Your task to perform on an android device: Add "razer naga" to the cart on costco, then select checkout. Image 0: 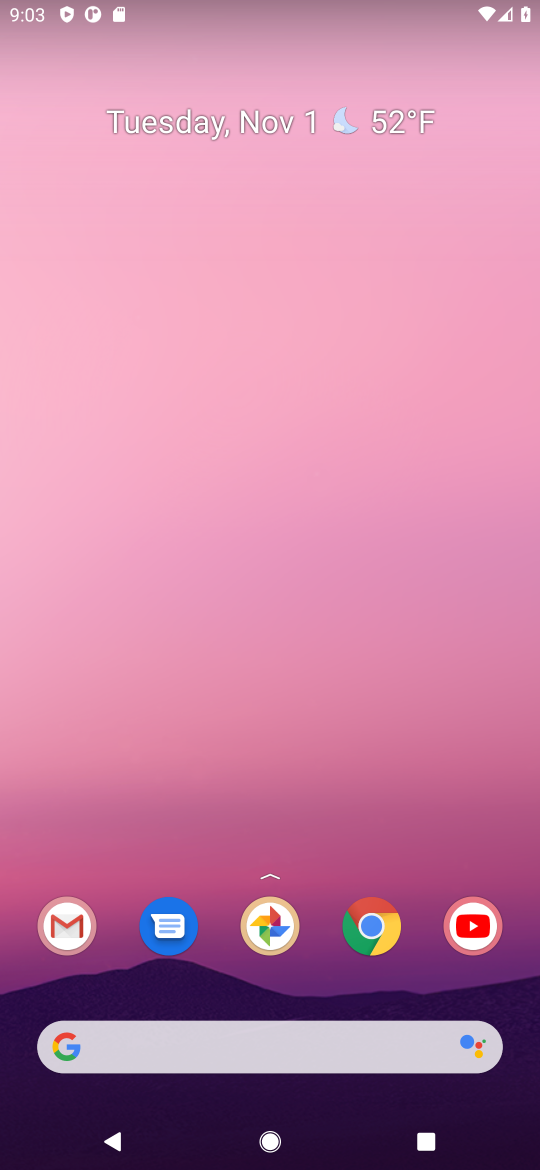
Step 0: click (401, 941)
Your task to perform on an android device: Add "razer naga" to the cart on costco, then select checkout. Image 1: 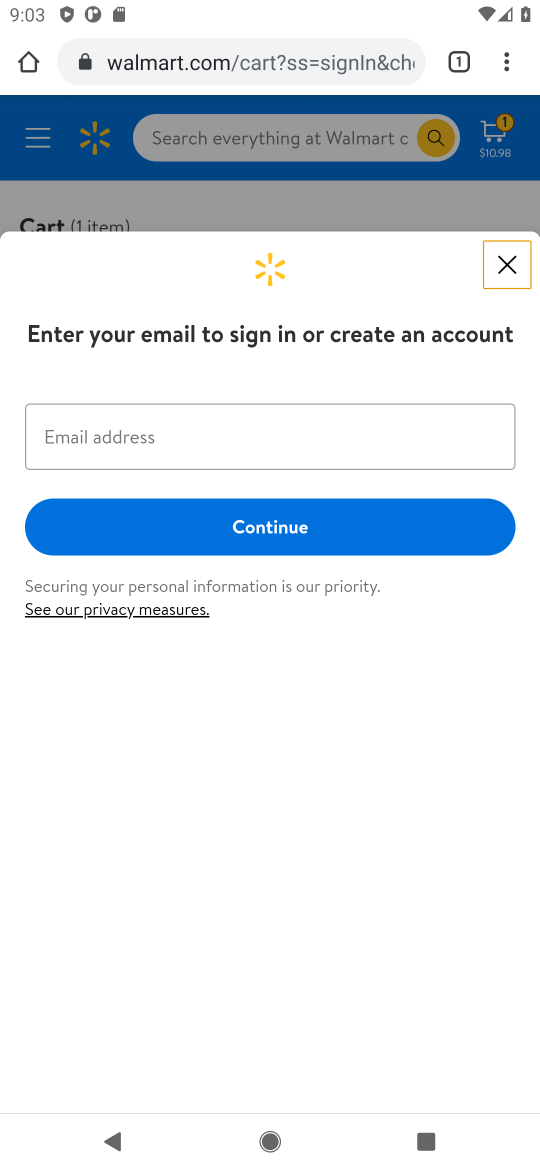
Step 1: click (507, 256)
Your task to perform on an android device: Add "razer naga" to the cart on costco, then select checkout. Image 2: 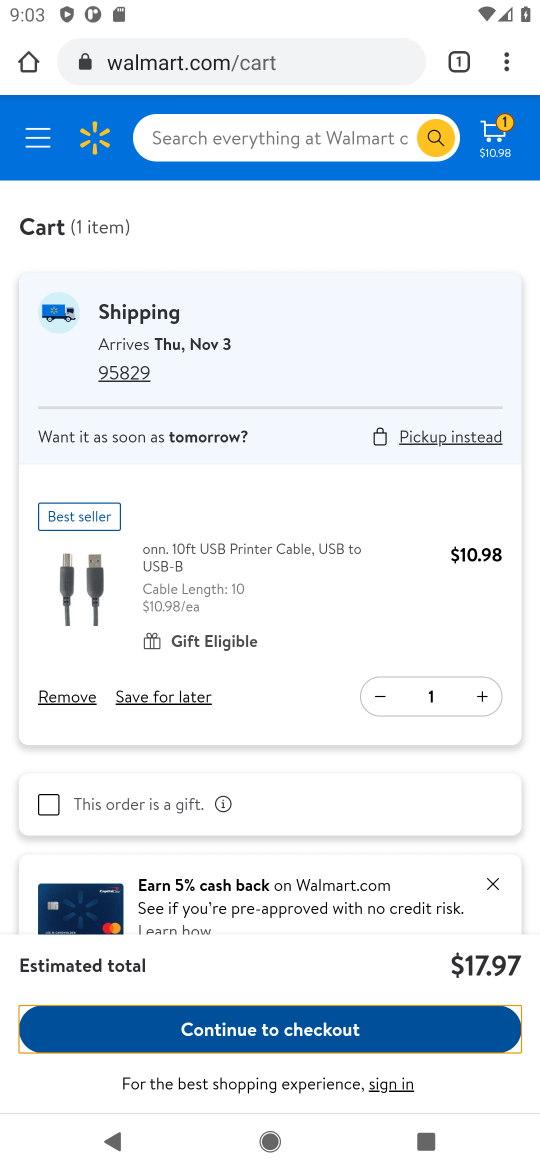
Step 2: click (134, 64)
Your task to perform on an android device: Add "razer naga" to the cart on costco, then select checkout. Image 3: 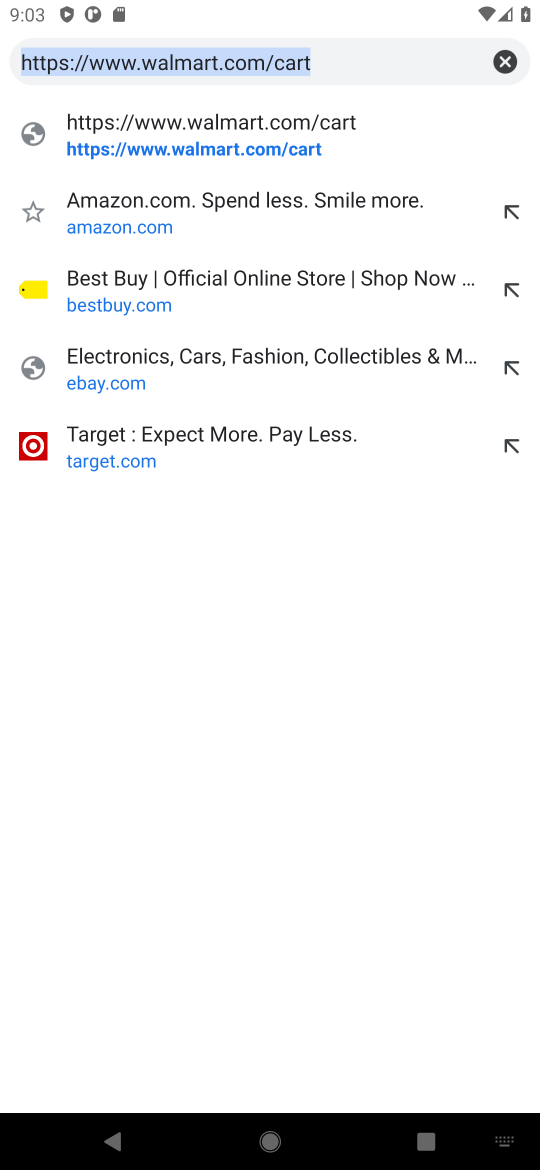
Step 3: type ""
Your task to perform on an android device: Add "razer naga" to the cart on costco, then select checkout. Image 4: 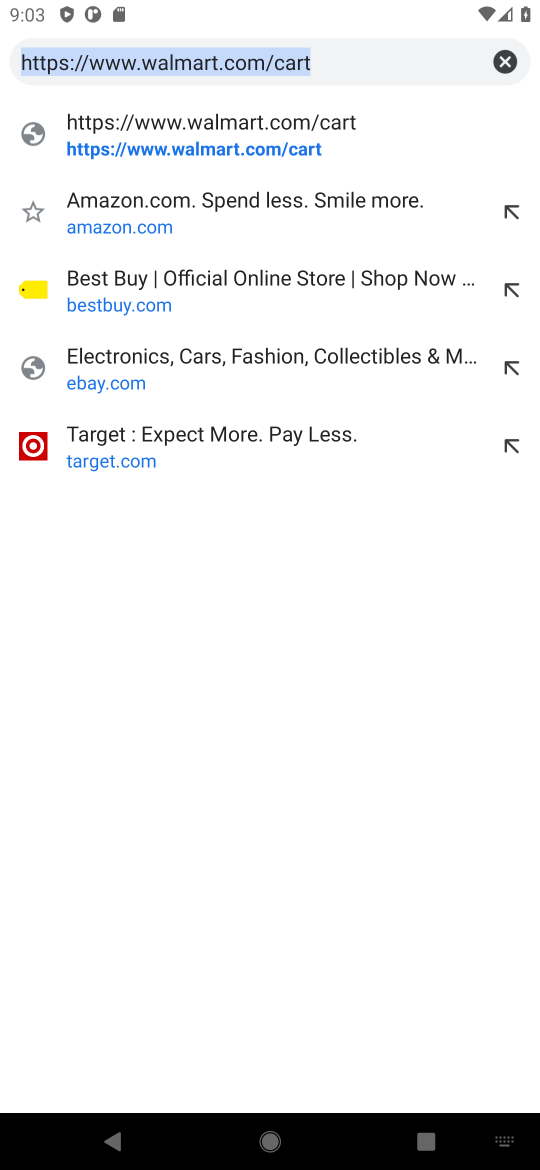
Step 4: type "costco"
Your task to perform on an android device: Add "razer naga" to the cart on costco, then select checkout. Image 5: 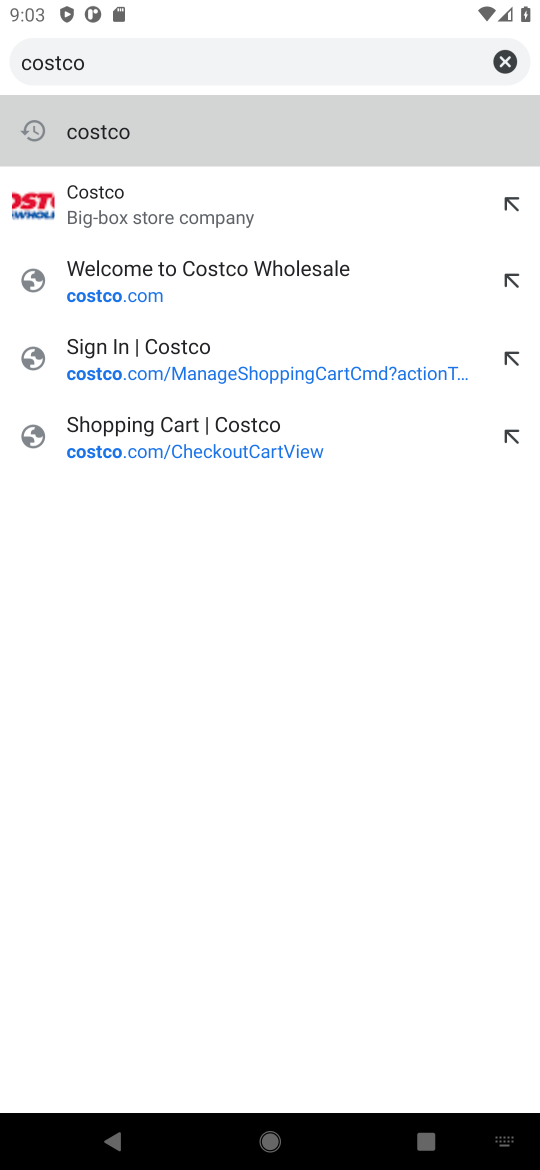
Step 5: type ""
Your task to perform on an android device: Add "razer naga" to the cart on costco, then select checkout. Image 6: 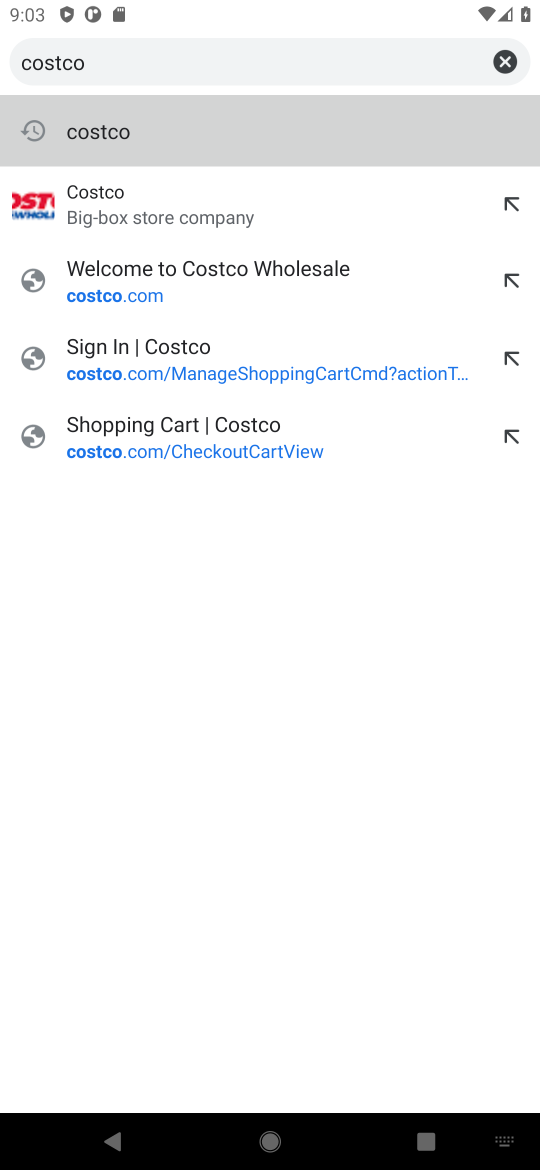
Step 6: click (91, 209)
Your task to perform on an android device: Add "razer naga" to the cart on costco, then select checkout. Image 7: 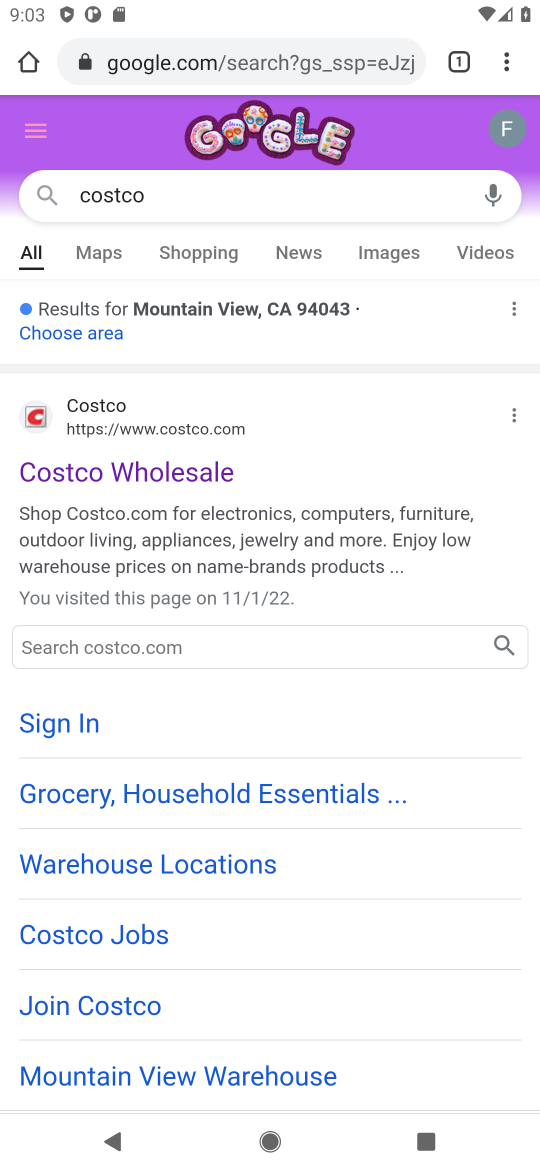
Step 7: click (145, 480)
Your task to perform on an android device: Add "razer naga" to the cart on costco, then select checkout. Image 8: 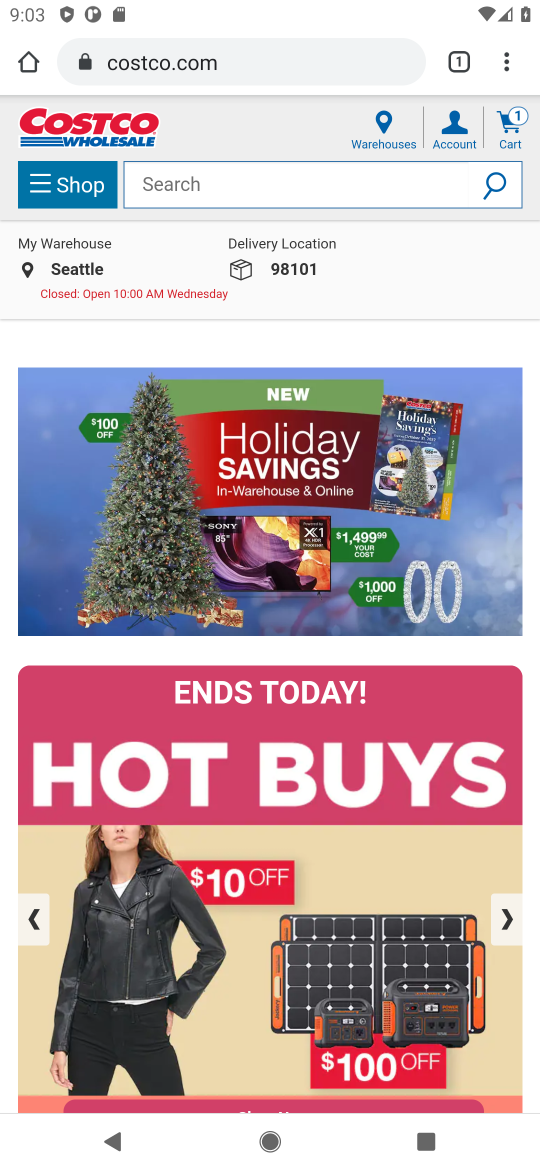
Step 8: click (240, 189)
Your task to perform on an android device: Add "razer naga" to the cart on costco, then select checkout. Image 9: 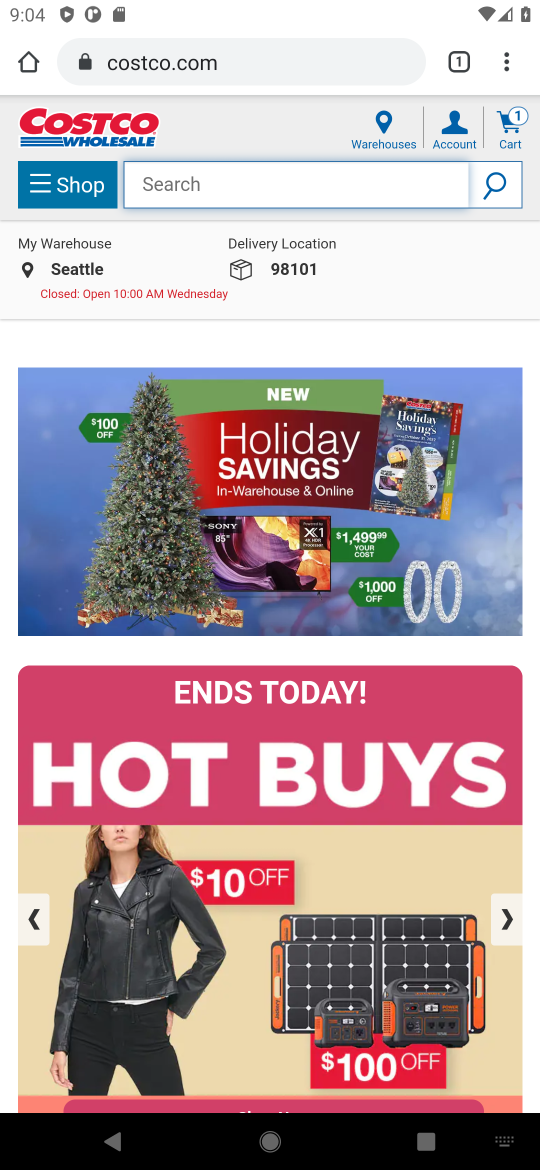
Step 9: type "razer naga"
Your task to perform on an android device: Add "razer naga" to the cart on costco, then select checkout. Image 10: 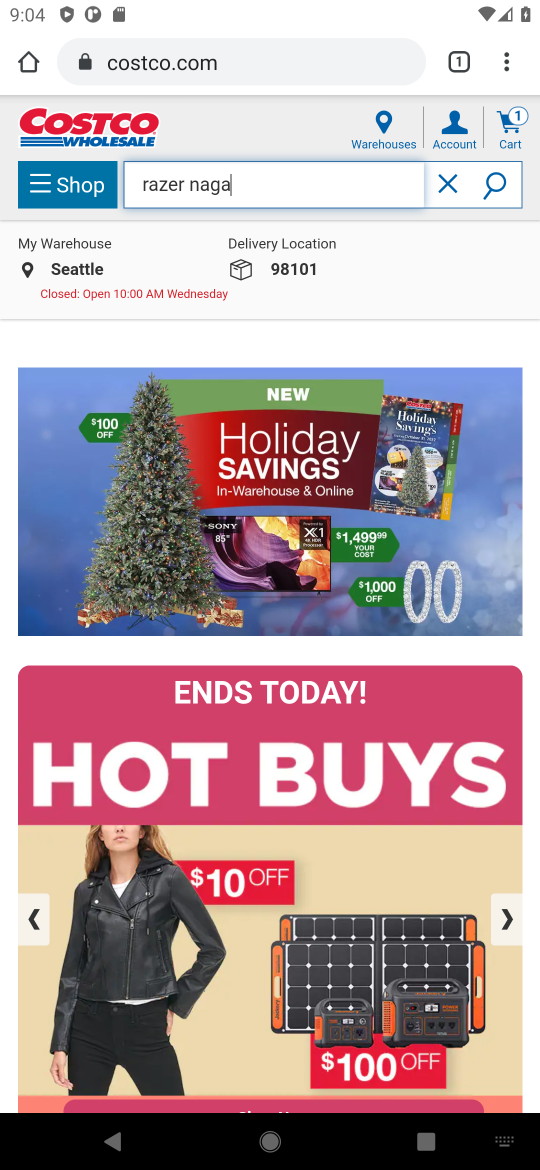
Step 10: type ""
Your task to perform on an android device: Add "razer naga" to the cart on costco, then select checkout. Image 11: 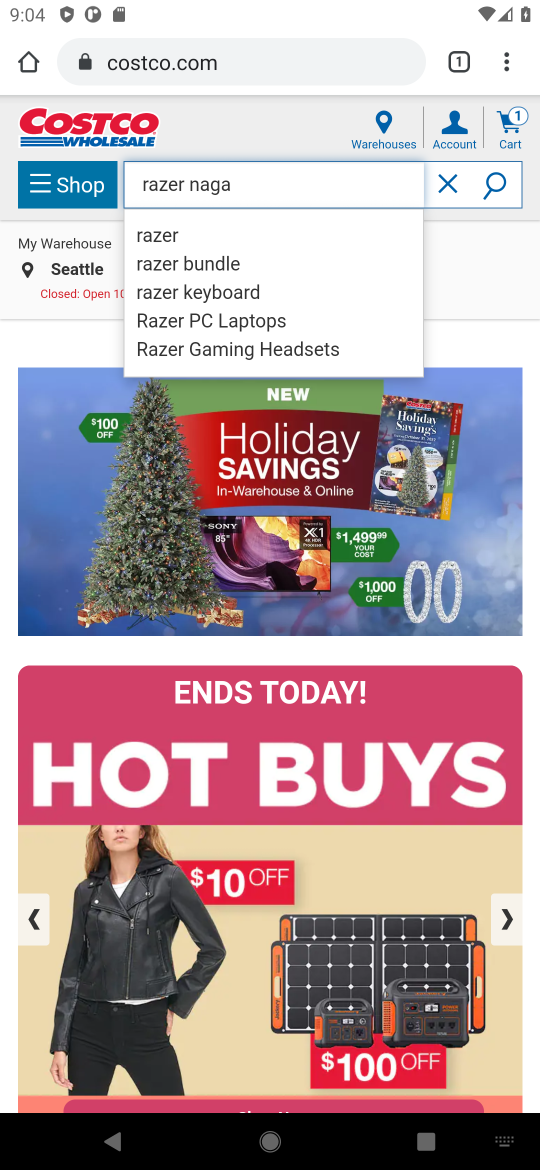
Step 11: click (210, 252)
Your task to perform on an android device: Add "razer naga" to the cart on costco, then select checkout. Image 12: 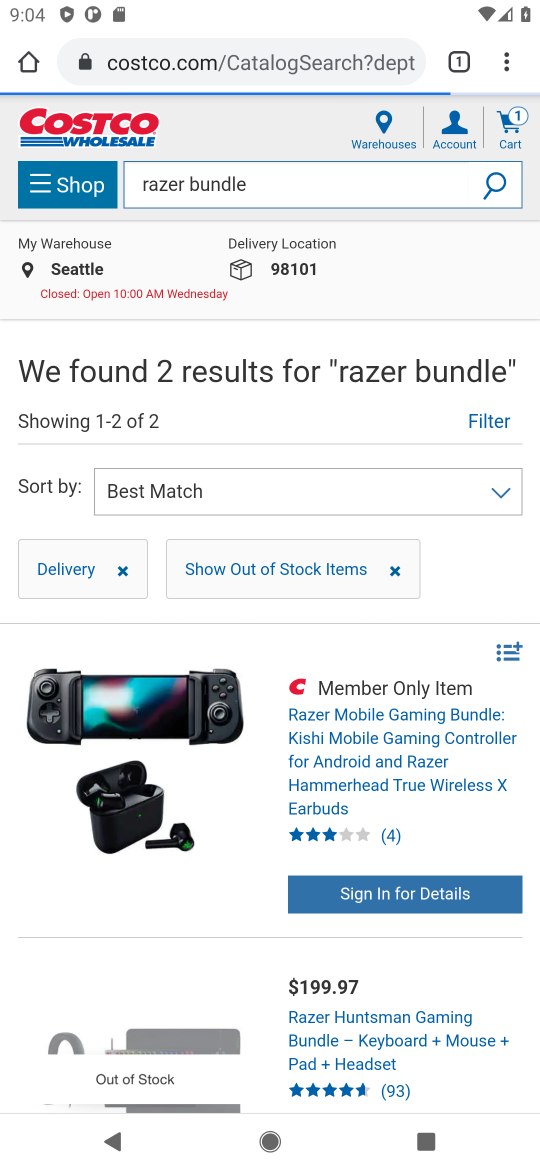
Step 12: drag from (147, 776) to (200, 145)
Your task to perform on an android device: Add "razer naga" to the cart on costco, then select checkout. Image 13: 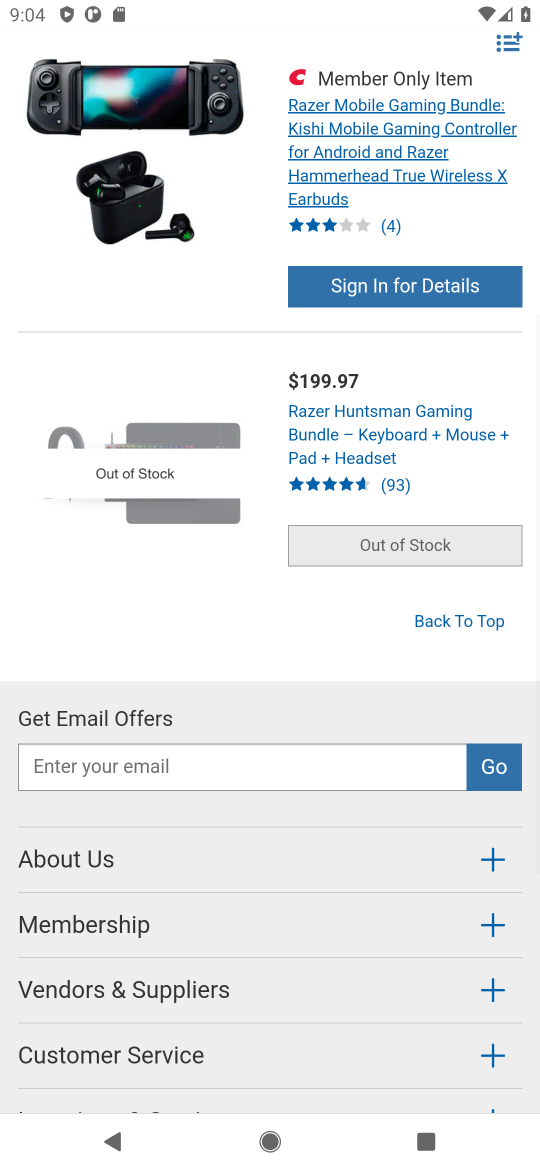
Step 13: drag from (179, 1087) to (217, 621)
Your task to perform on an android device: Add "razer naga" to the cart on costco, then select checkout. Image 14: 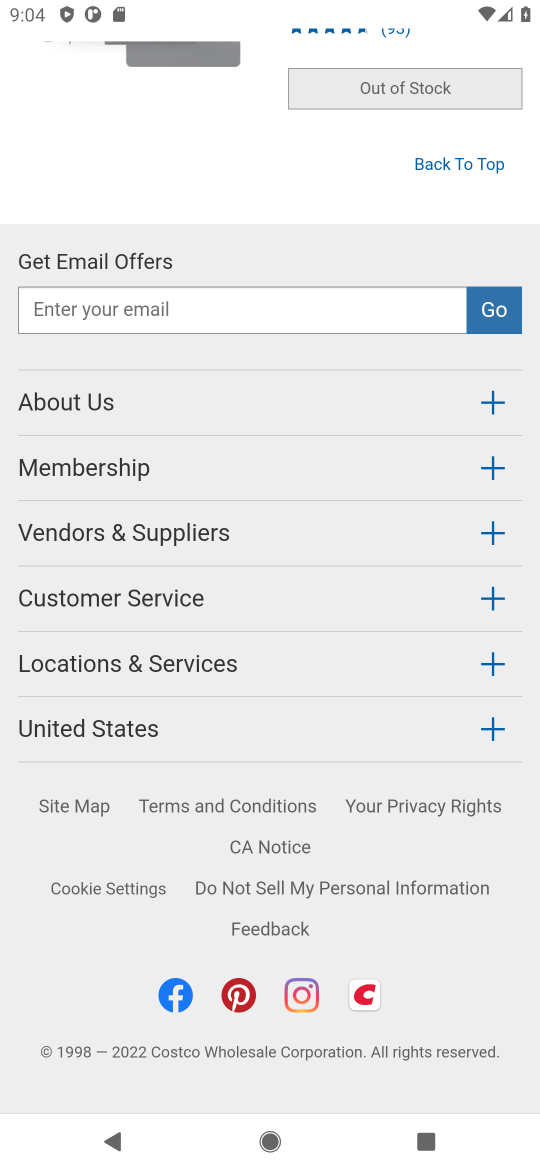
Step 14: drag from (286, 414) to (292, 914)
Your task to perform on an android device: Add "razer naga" to the cart on costco, then select checkout. Image 15: 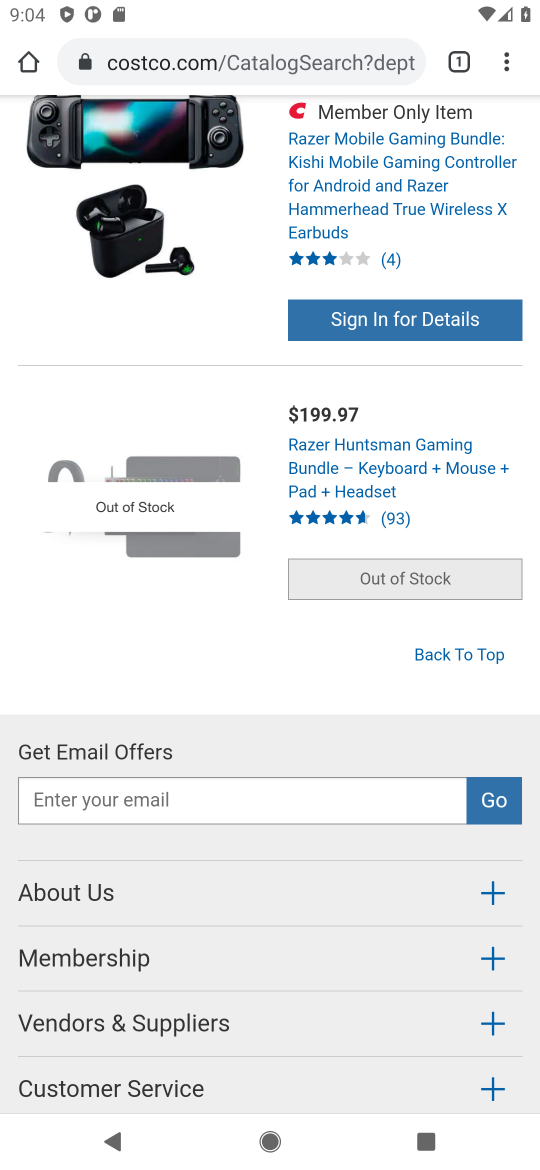
Step 15: click (398, 442)
Your task to perform on an android device: Add "razer naga" to the cart on costco, then select checkout. Image 16: 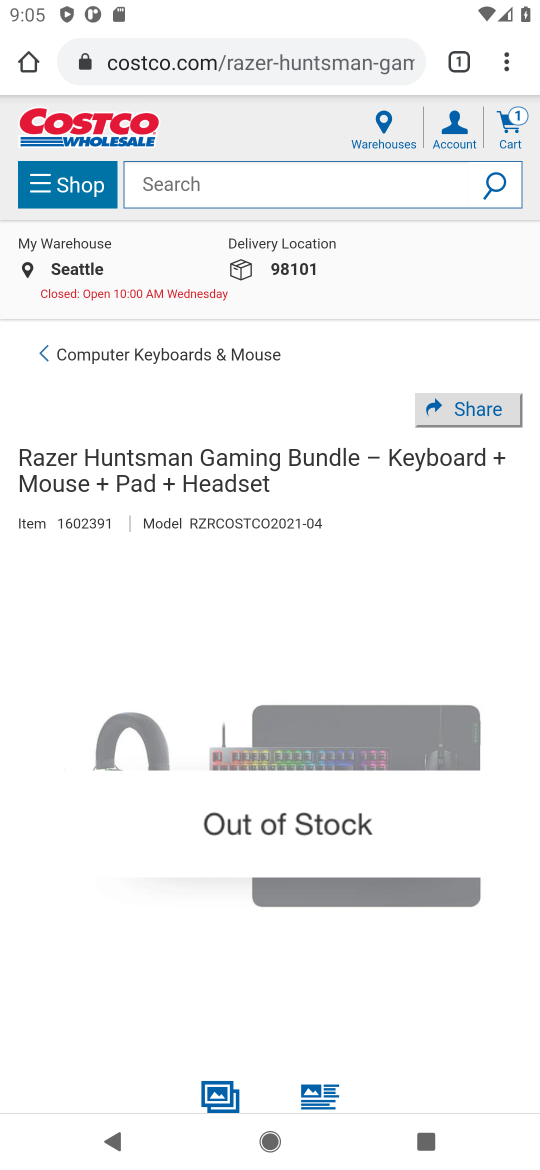
Step 16: drag from (172, 957) to (249, 278)
Your task to perform on an android device: Add "razer naga" to the cart on costco, then select checkout. Image 17: 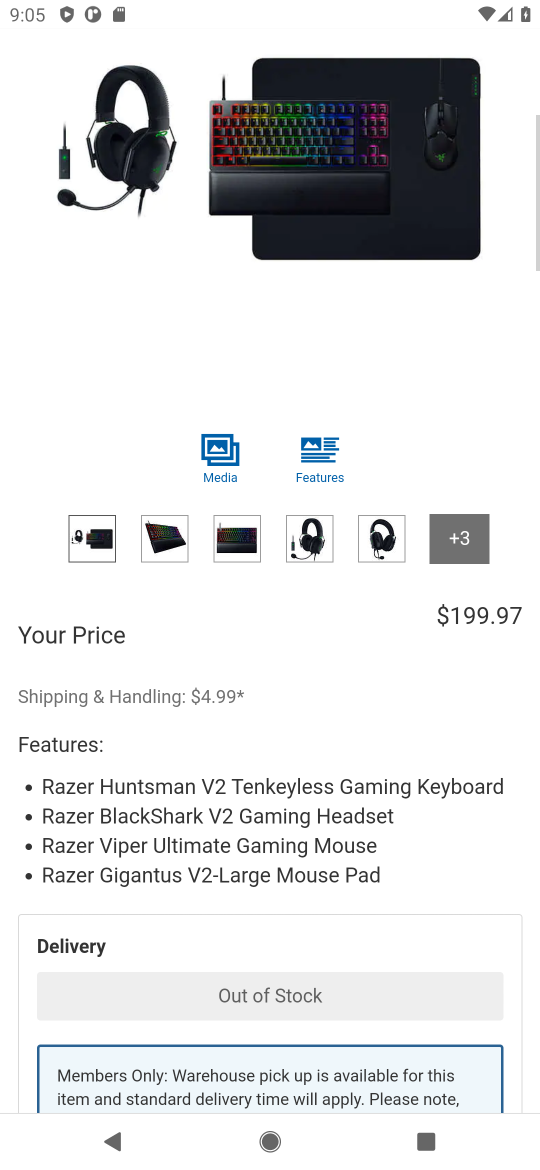
Step 17: drag from (205, 926) to (256, 608)
Your task to perform on an android device: Add "razer naga" to the cart on costco, then select checkout. Image 18: 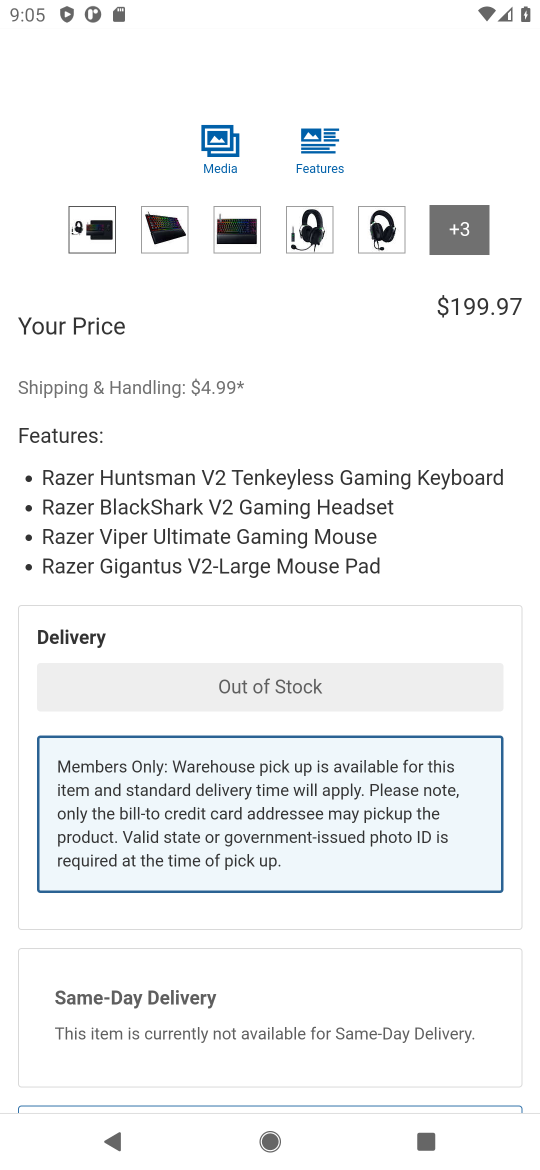
Step 18: drag from (199, 1079) to (326, 207)
Your task to perform on an android device: Add "razer naga" to the cart on costco, then select checkout. Image 19: 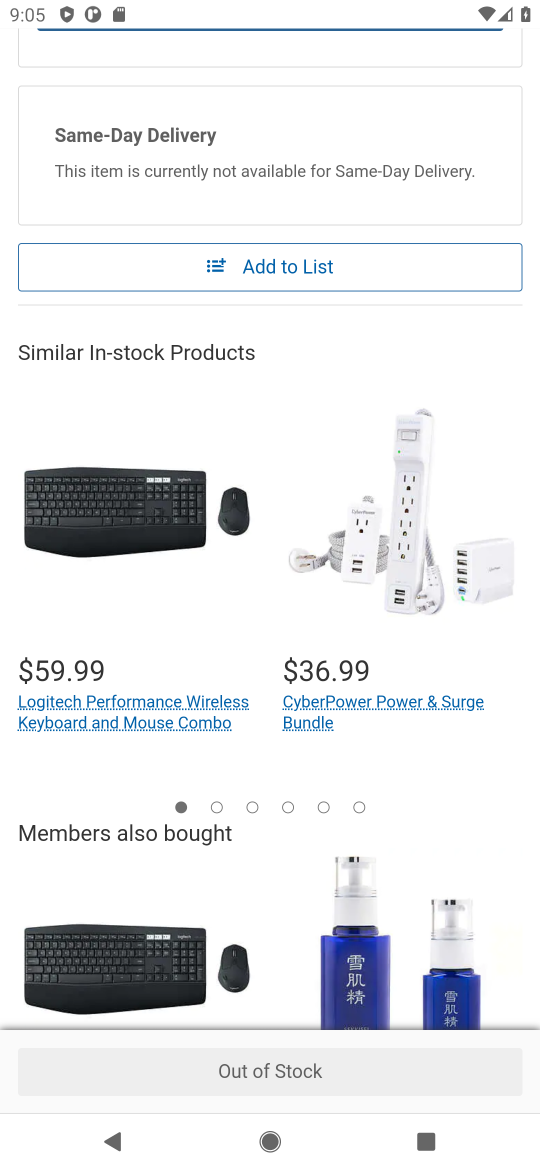
Step 19: drag from (178, 857) to (262, 266)
Your task to perform on an android device: Add "razer naga" to the cart on costco, then select checkout. Image 20: 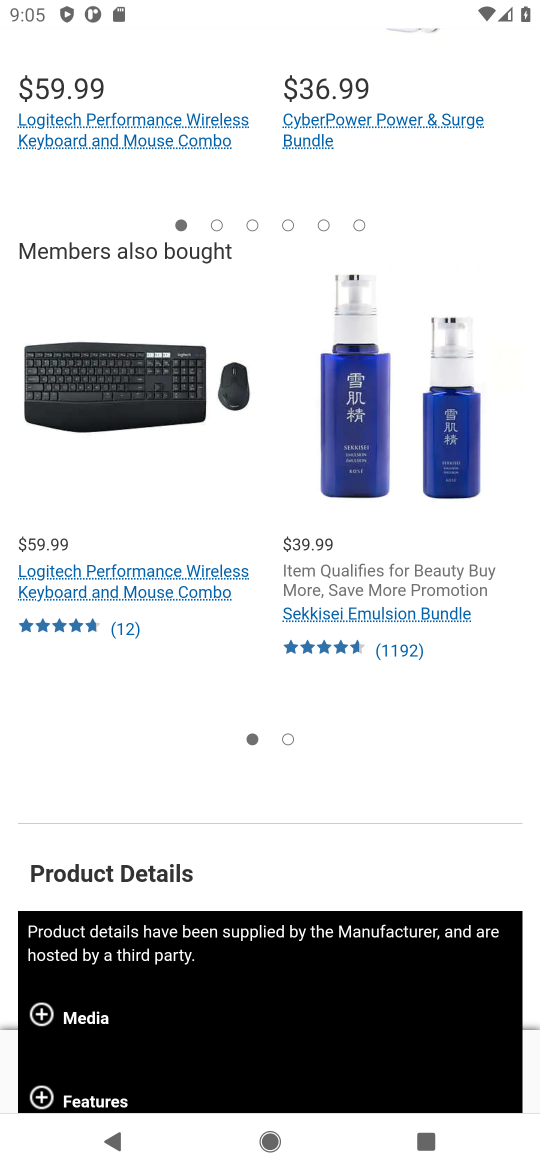
Step 20: drag from (211, 413) to (97, 990)
Your task to perform on an android device: Add "razer naga" to the cart on costco, then select checkout. Image 21: 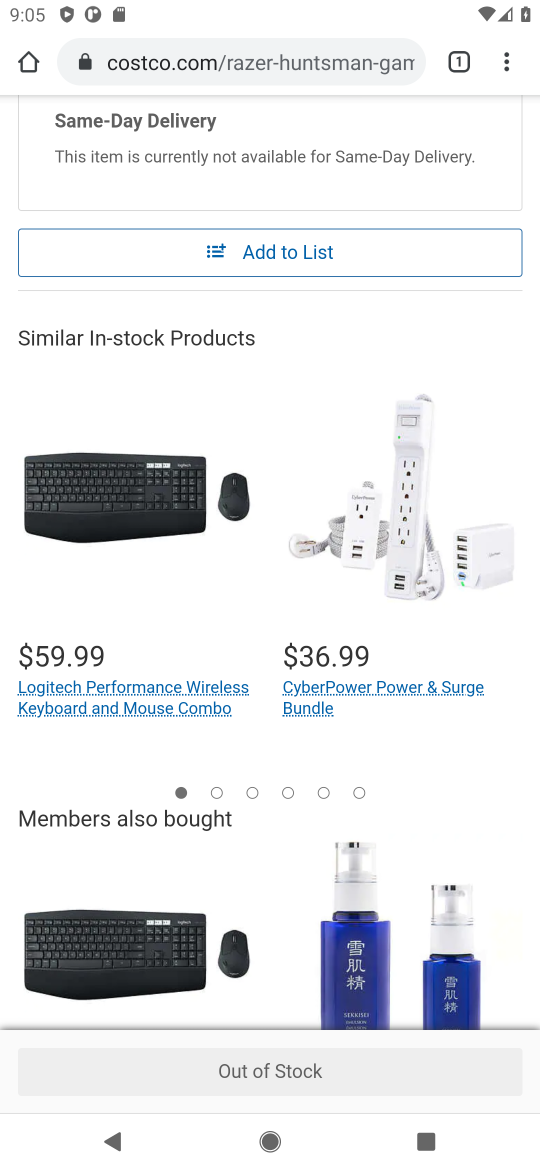
Step 21: drag from (327, 506) to (224, 859)
Your task to perform on an android device: Add "razer naga" to the cart on costco, then select checkout. Image 22: 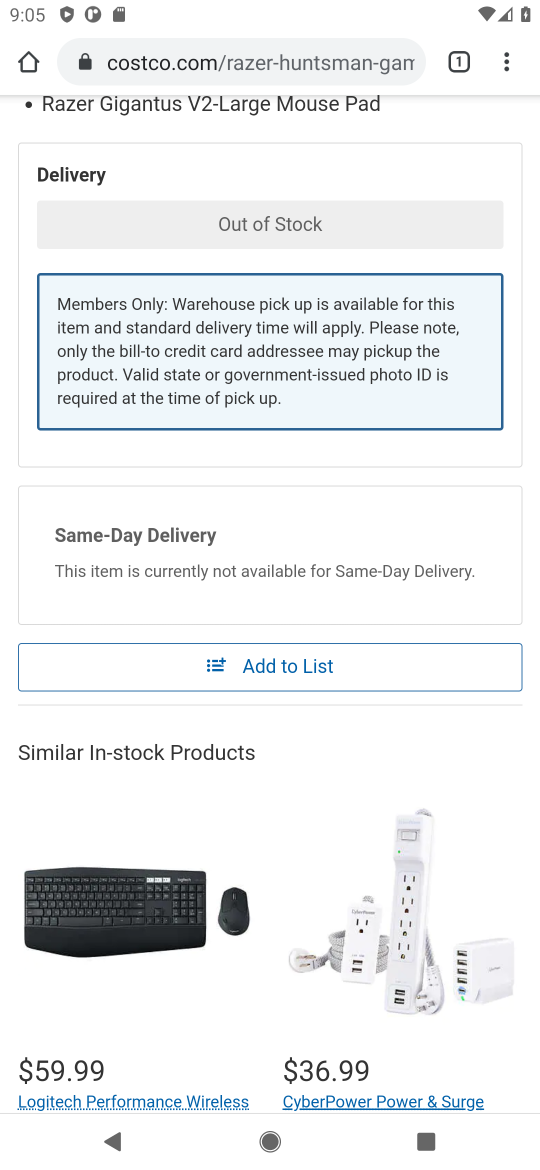
Step 22: drag from (394, 413) to (141, 792)
Your task to perform on an android device: Add "razer naga" to the cart on costco, then select checkout. Image 23: 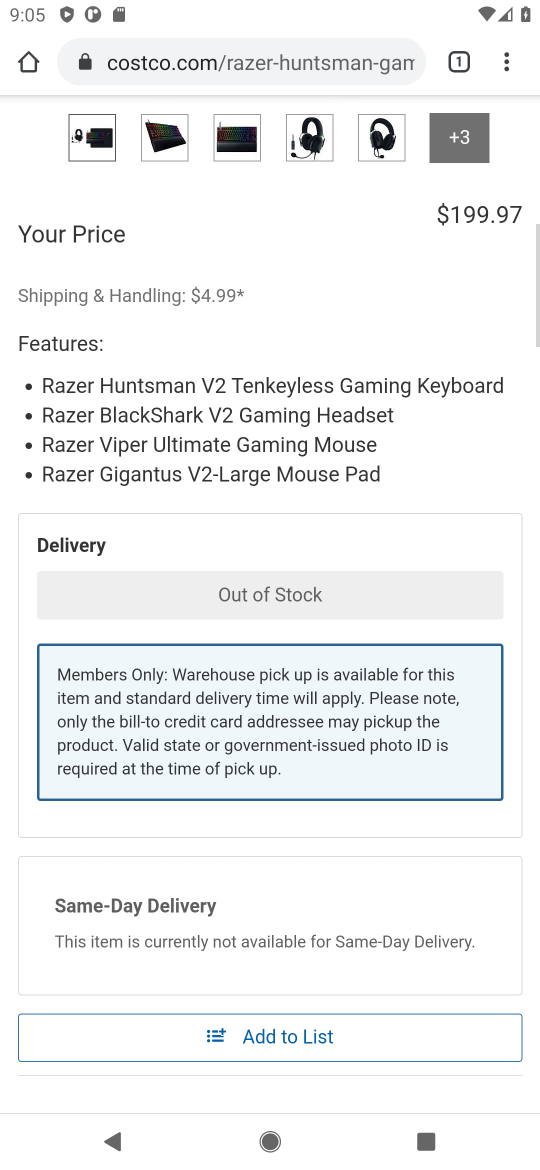
Step 23: drag from (323, 233) to (110, 721)
Your task to perform on an android device: Add "razer naga" to the cart on costco, then select checkout. Image 24: 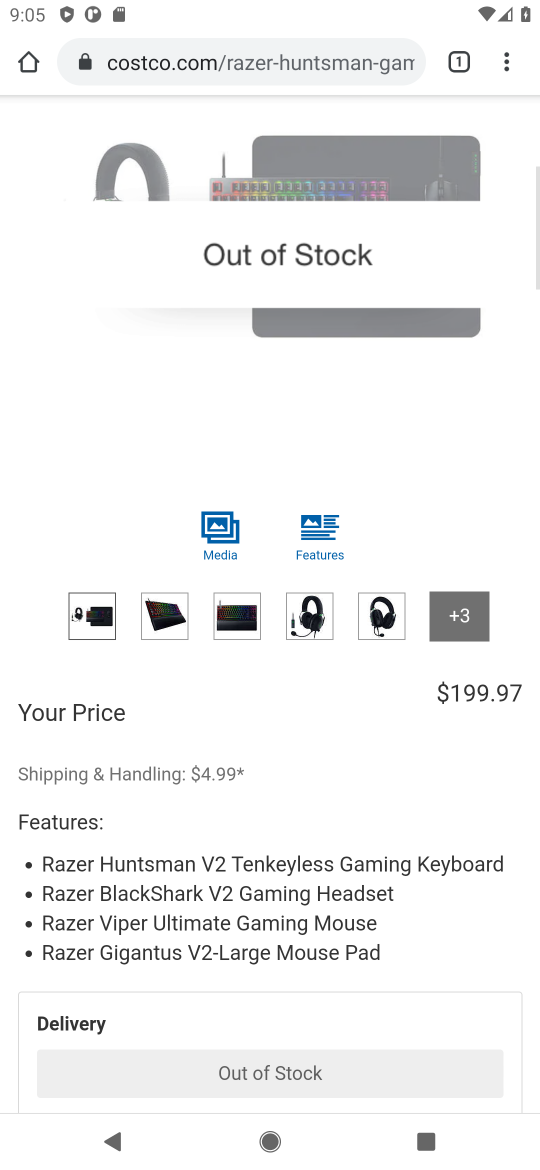
Step 24: drag from (212, 418) to (105, 737)
Your task to perform on an android device: Add "razer naga" to the cart on costco, then select checkout. Image 25: 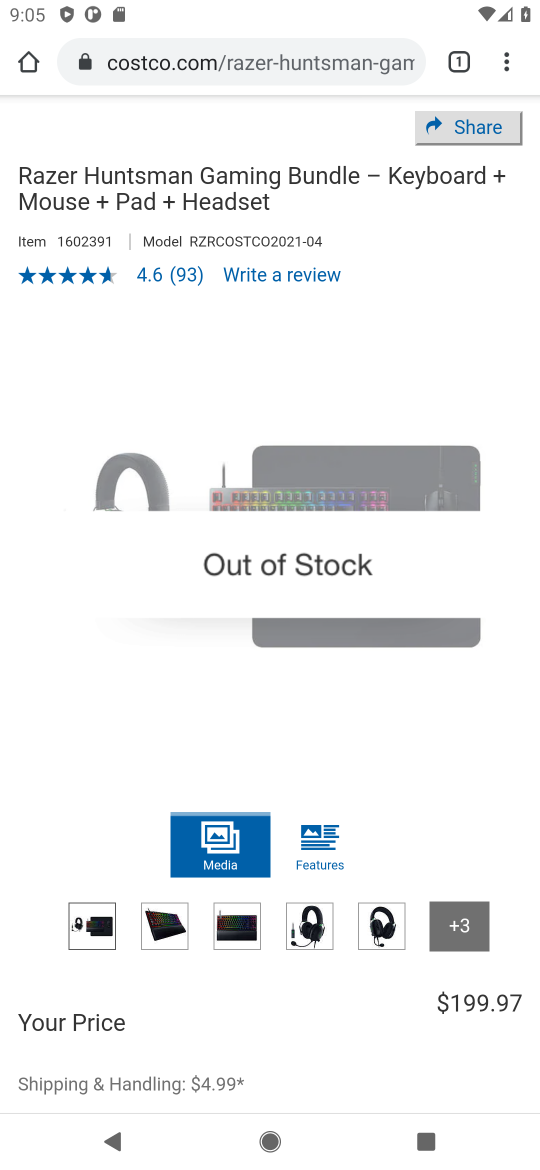
Step 25: drag from (324, 322) to (240, 868)
Your task to perform on an android device: Add "razer naga" to the cart on costco, then select checkout. Image 26: 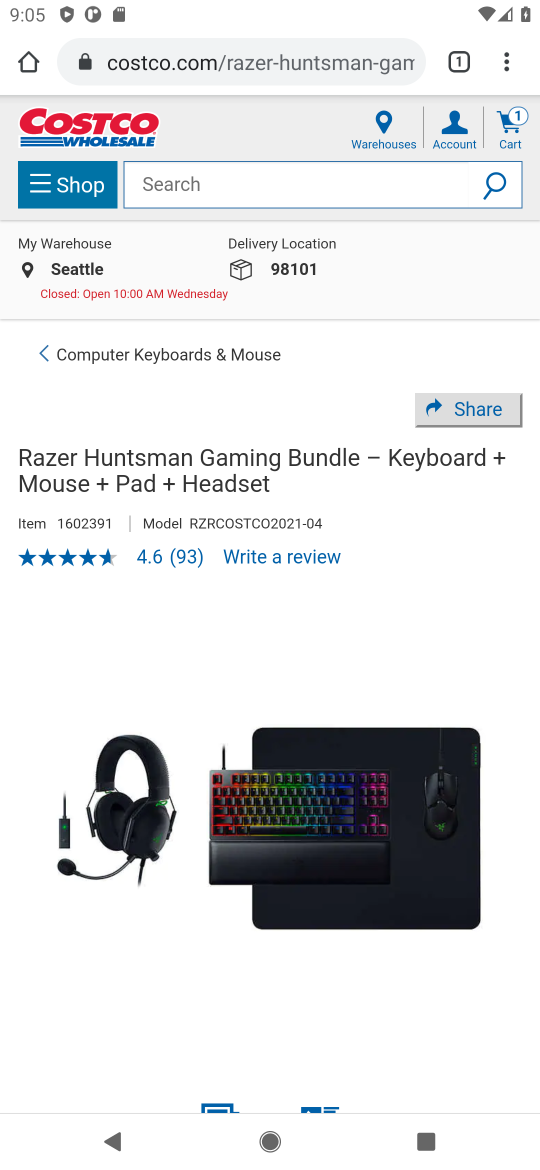
Step 26: click (294, 858)
Your task to perform on an android device: Add "razer naga" to the cart on costco, then select checkout. Image 27: 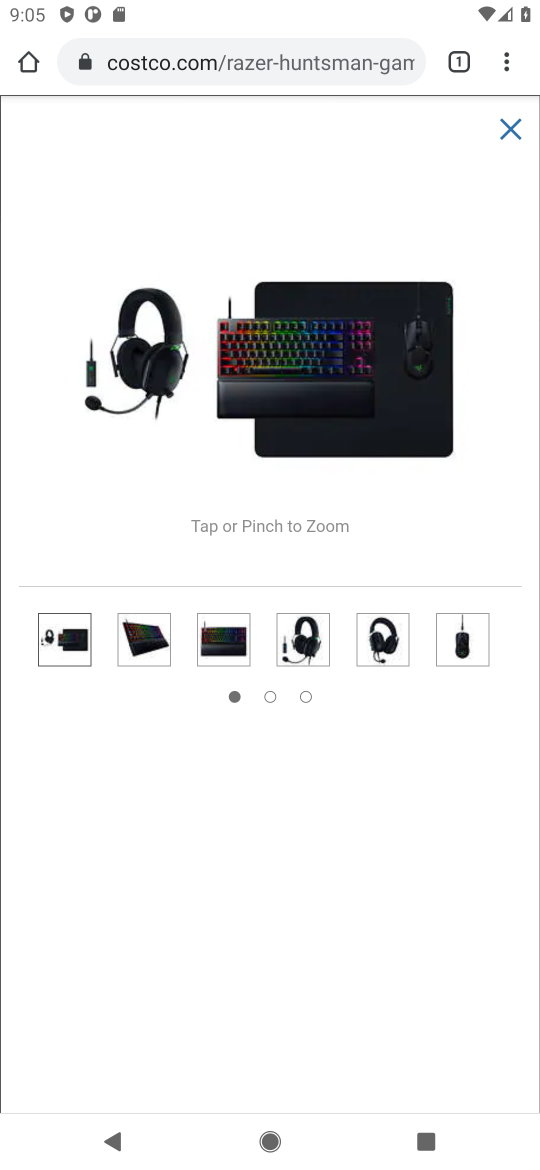
Step 27: drag from (444, 987) to (478, 564)
Your task to perform on an android device: Add "razer naga" to the cart on costco, then select checkout. Image 28: 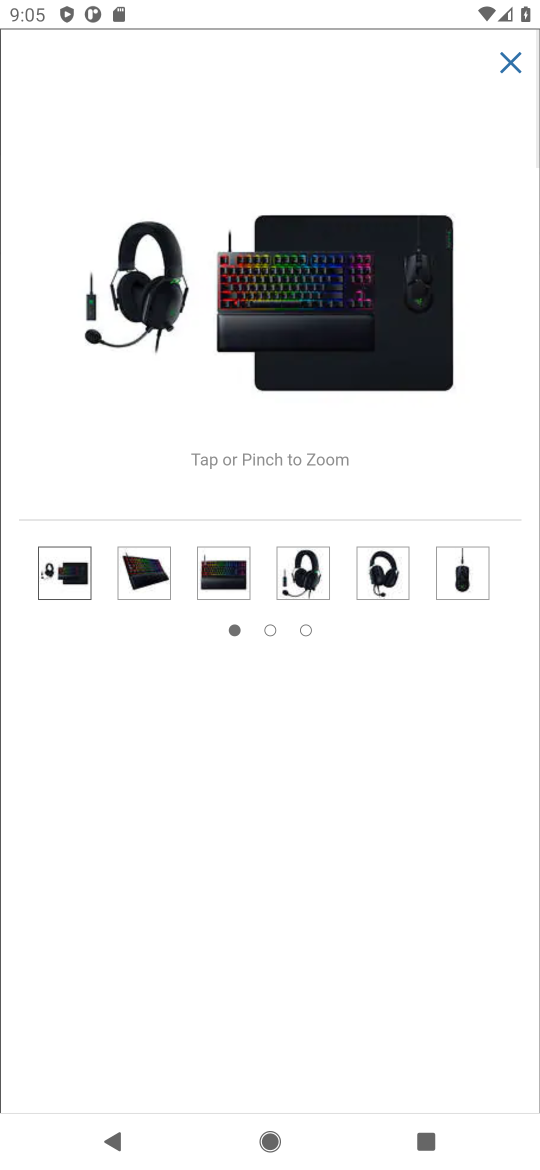
Step 28: drag from (328, 666) to (289, 1121)
Your task to perform on an android device: Add "razer naga" to the cart on costco, then select checkout. Image 29: 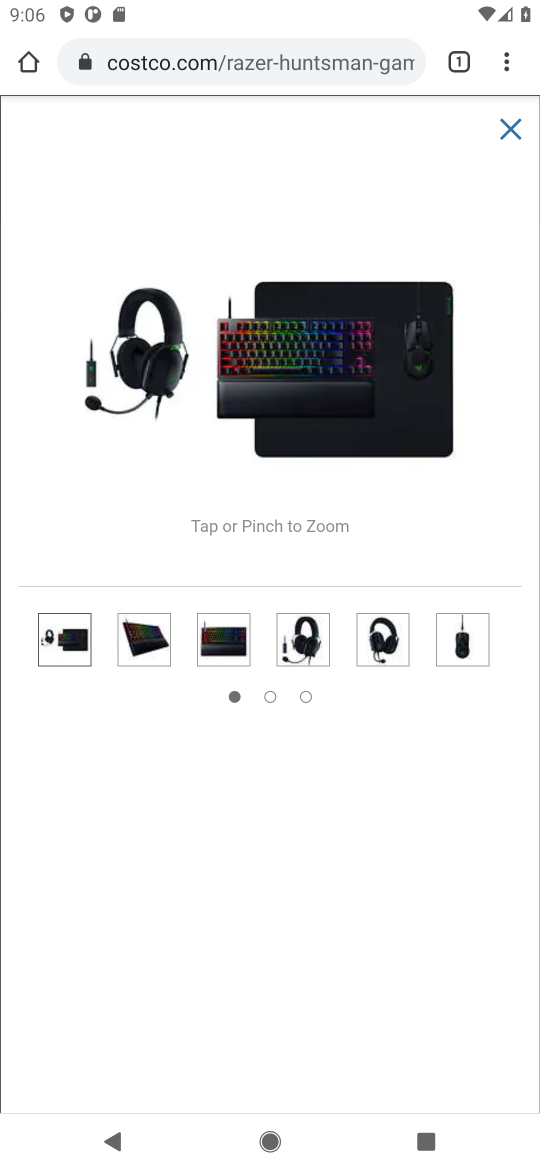
Step 29: press back button
Your task to perform on an android device: Add "razer naga" to the cart on costco, then select checkout. Image 30: 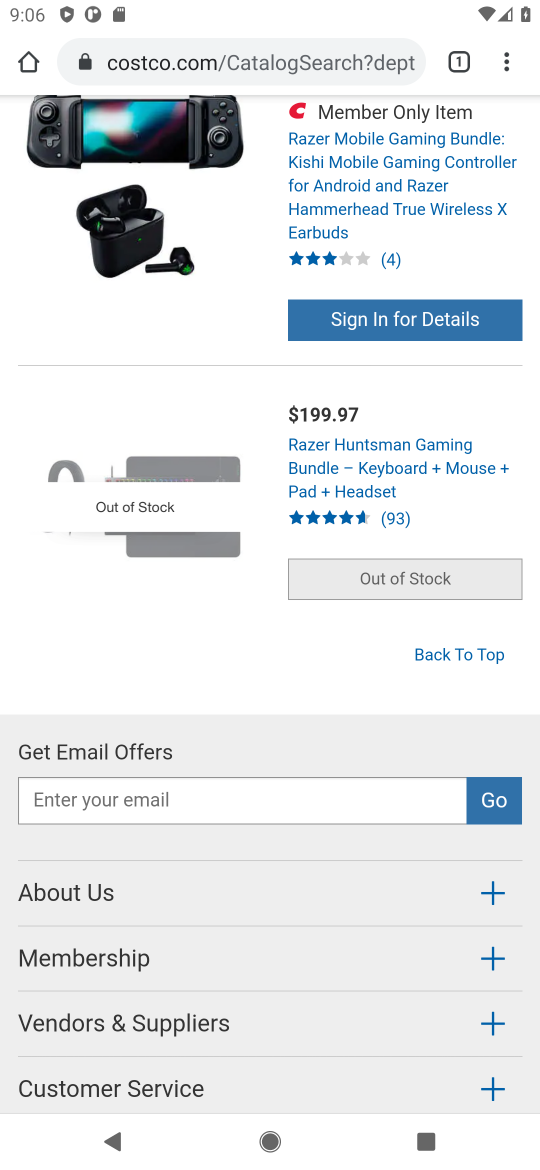
Step 30: drag from (201, 992) to (375, 935)
Your task to perform on an android device: Add "razer naga" to the cart on costco, then select checkout. Image 31: 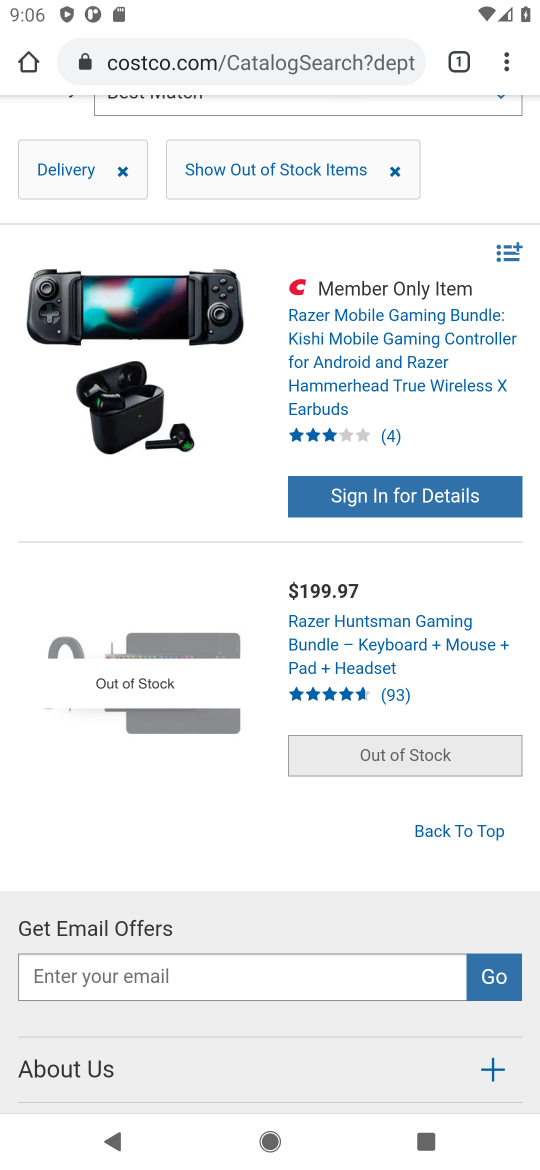
Step 31: click (353, 489)
Your task to perform on an android device: Add "razer naga" to the cart on costco, then select checkout. Image 32: 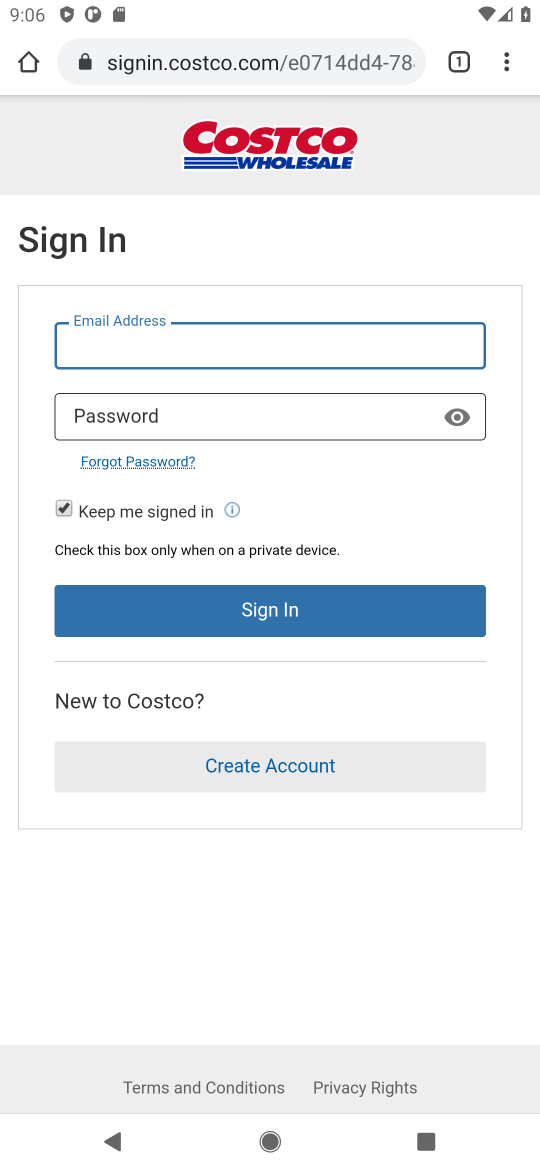
Step 32: task complete